Your task to perform on an android device: open wifi settings Image 0: 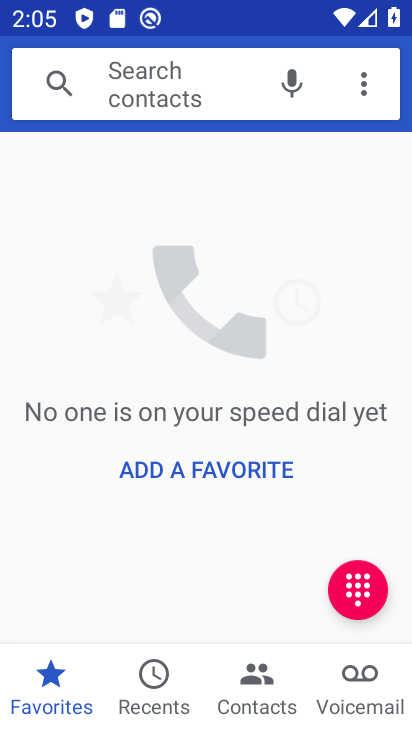
Step 0: press home button
Your task to perform on an android device: open wifi settings Image 1: 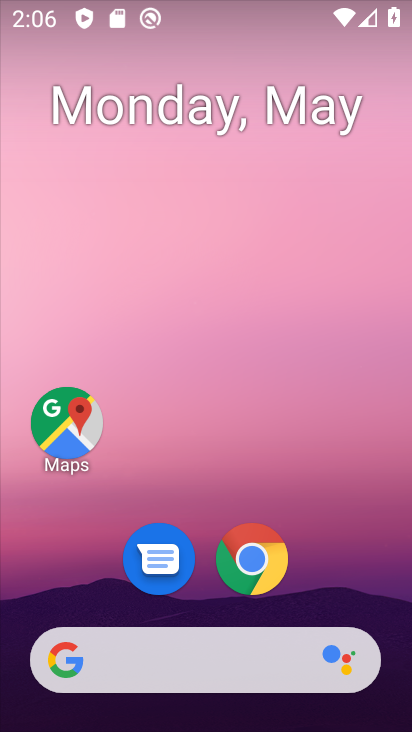
Step 1: drag from (254, 663) to (131, 63)
Your task to perform on an android device: open wifi settings Image 2: 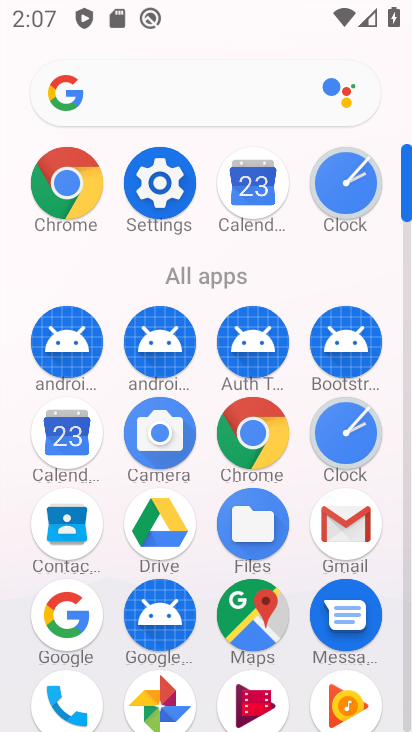
Step 2: click (175, 211)
Your task to perform on an android device: open wifi settings Image 3: 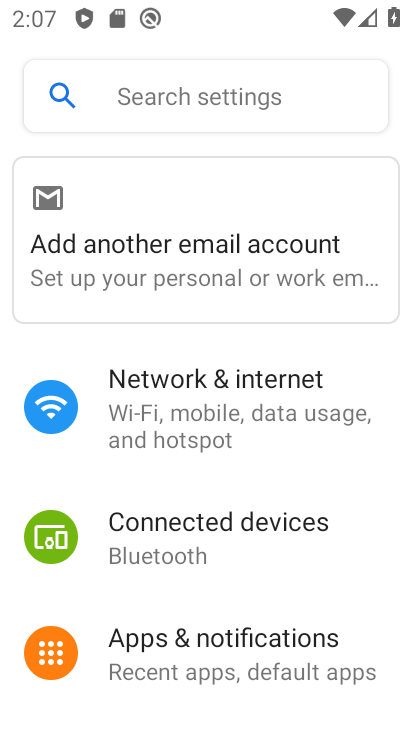
Step 3: click (188, 369)
Your task to perform on an android device: open wifi settings Image 4: 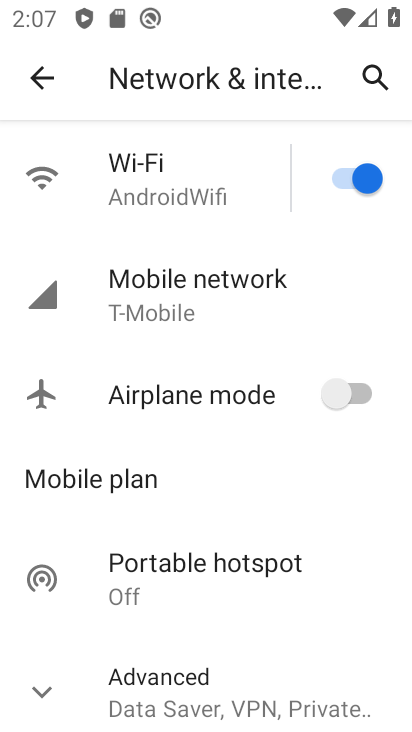
Step 4: click (172, 194)
Your task to perform on an android device: open wifi settings Image 5: 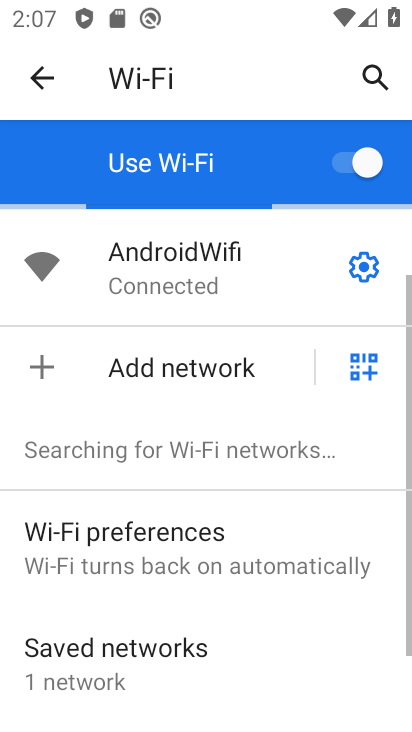
Step 5: task complete